Your task to perform on an android device: toggle wifi Image 0: 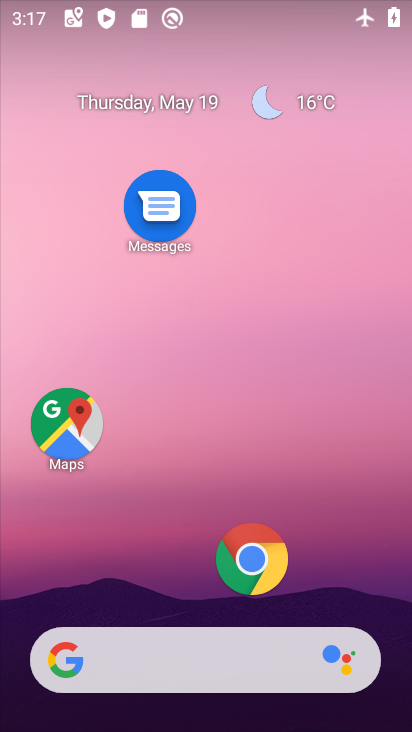
Step 0: drag from (181, 611) to (227, 212)
Your task to perform on an android device: toggle wifi Image 1: 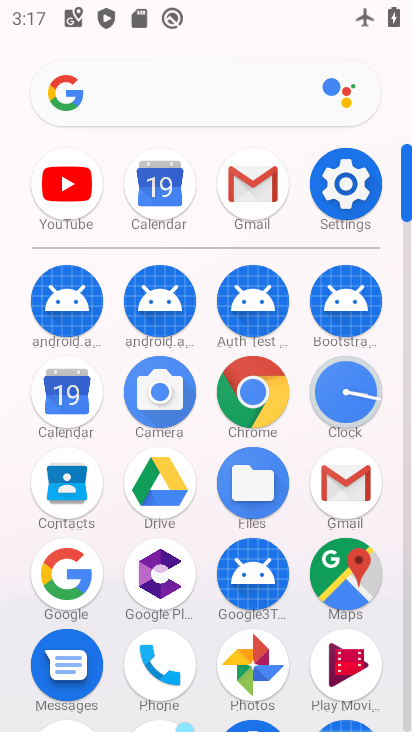
Step 1: click (335, 200)
Your task to perform on an android device: toggle wifi Image 2: 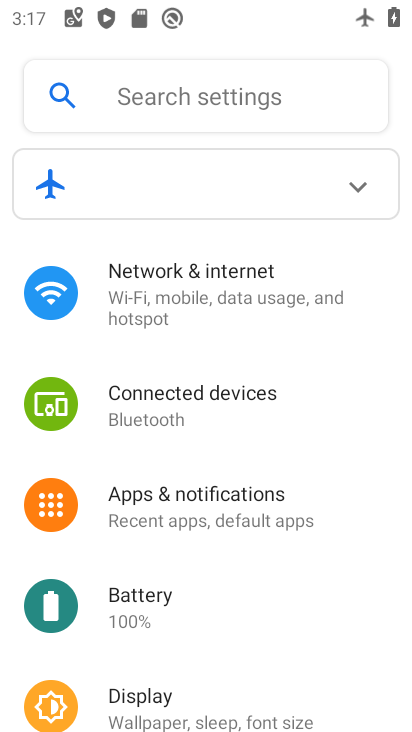
Step 2: click (170, 293)
Your task to perform on an android device: toggle wifi Image 3: 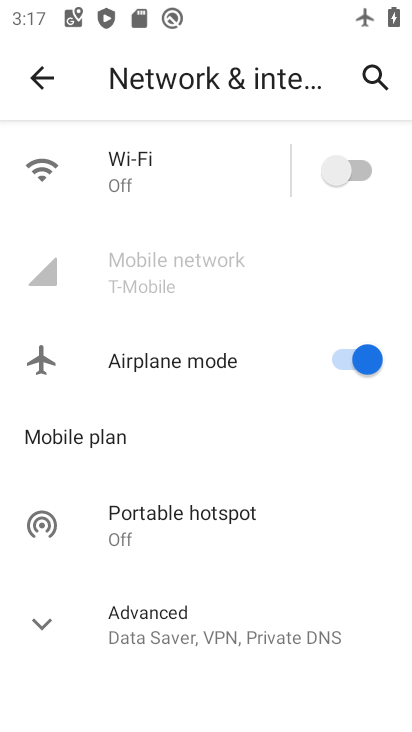
Step 3: click (354, 166)
Your task to perform on an android device: toggle wifi Image 4: 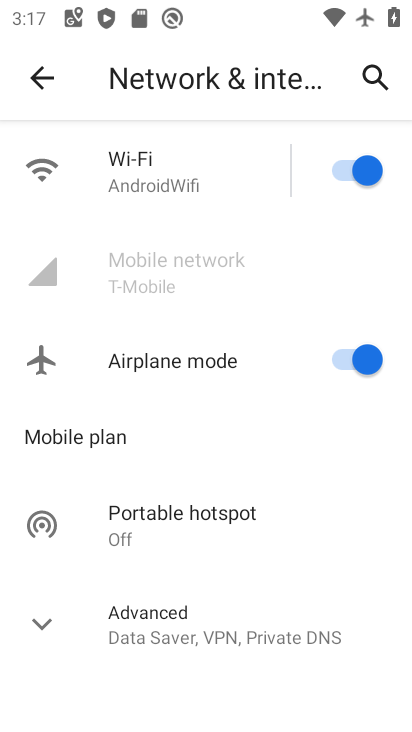
Step 4: task complete